Your task to perform on an android device: Toggle the flashlight Image 0: 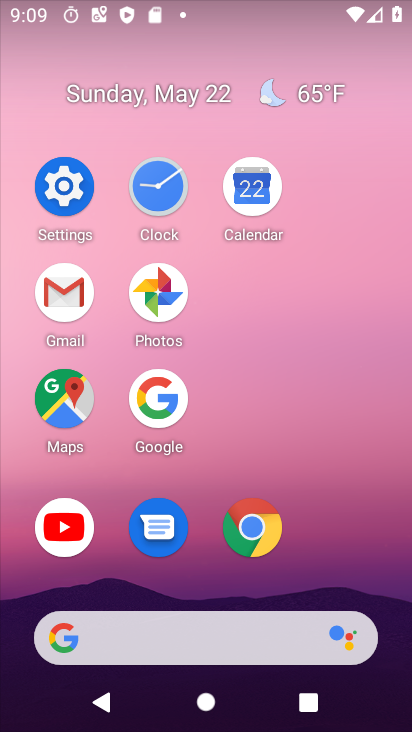
Step 0: drag from (310, 2) to (331, 443)
Your task to perform on an android device: Toggle the flashlight Image 1: 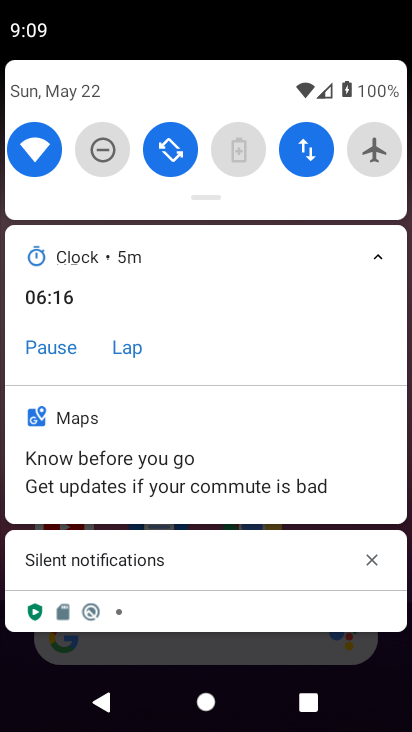
Step 1: task complete